Your task to perform on an android device: Show me recent news Image 0: 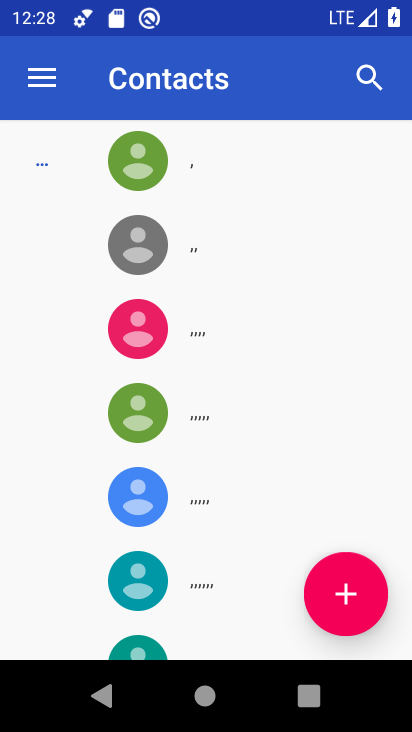
Step 0: press home button
Your task to perform on an android device: Show me recent news Image 1: 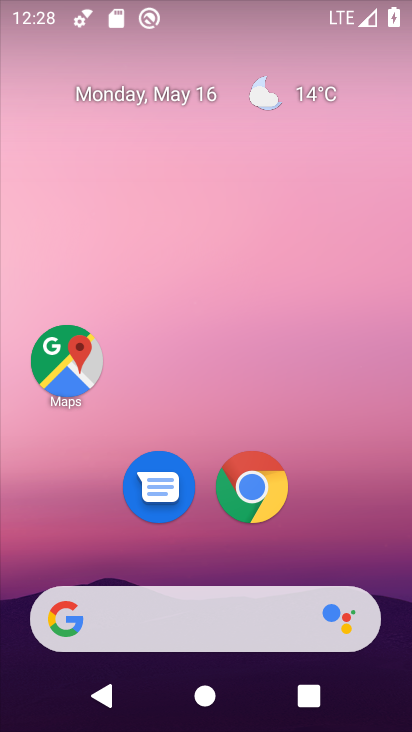
Step 1: task complete